Your task to perform on an android device: make emails show in primary in the gmail app Image 0: 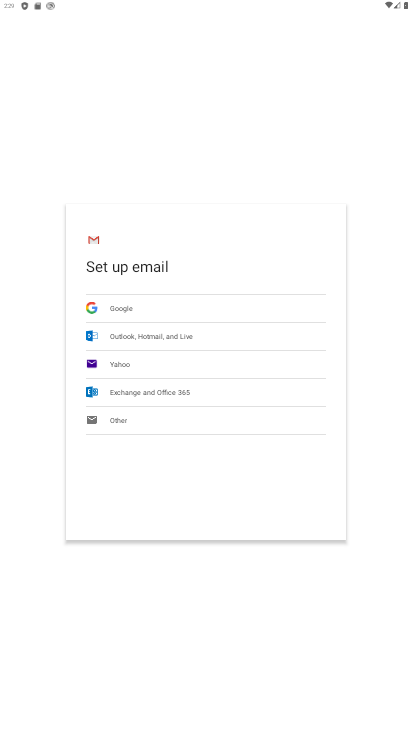
Step 0: press home button
Your task to perform on an android device: make emails show in primary in the gmail app Image 1: 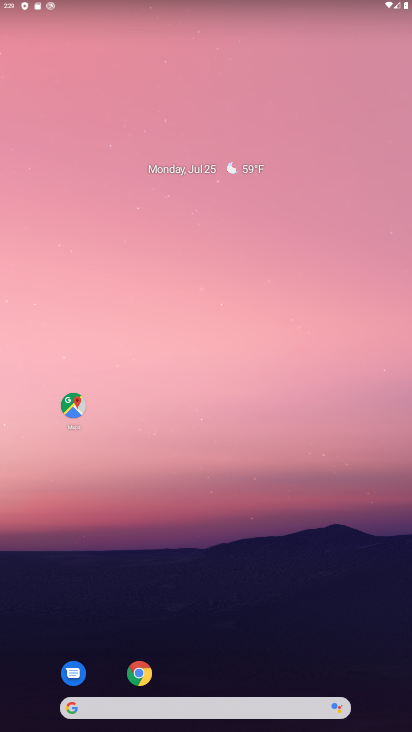
Step 1: drag from (210, 0) to (189, 44)
Your task to perform on an android device: make emails show in primary in the gmail app Image 2: 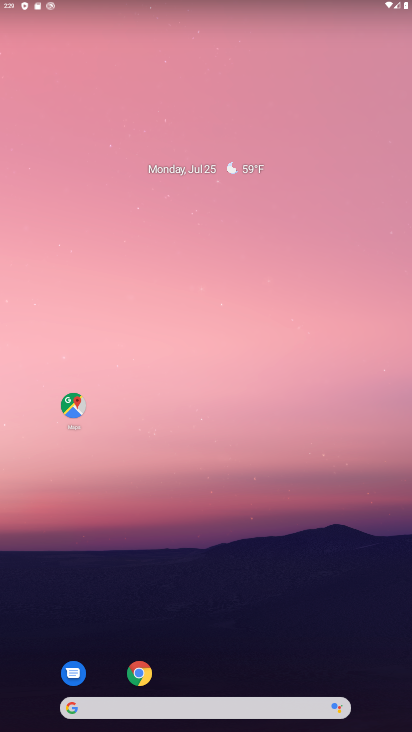
Step 2: drag from (211, 594) to (212, 115)
Your task to perform on an android device: make emails show in primary in the gmail app Image 3: 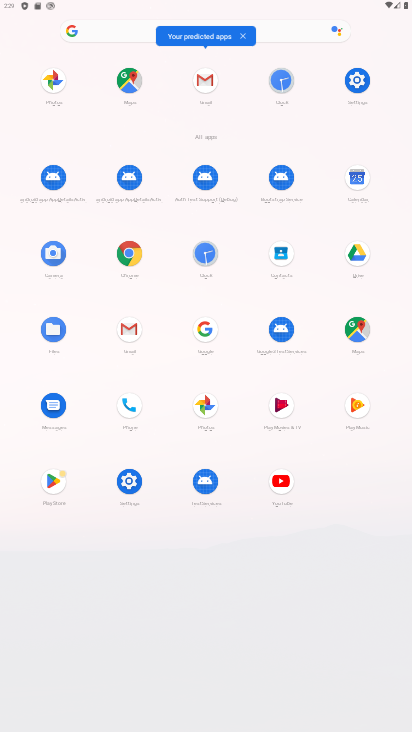
Step 3: click (206, 84)
Your task to perform on an android device: make emails show in primary in the gmail app Image 4: 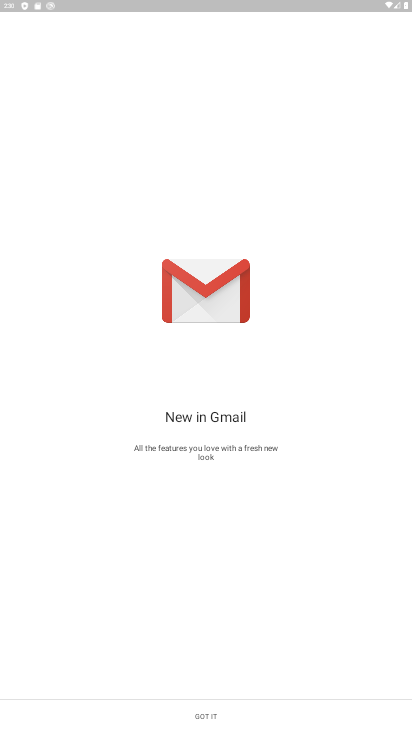
Step 4: click (210, 721)
Your task to perform on an android device: make emails show in primary in the gmail app Image 5: 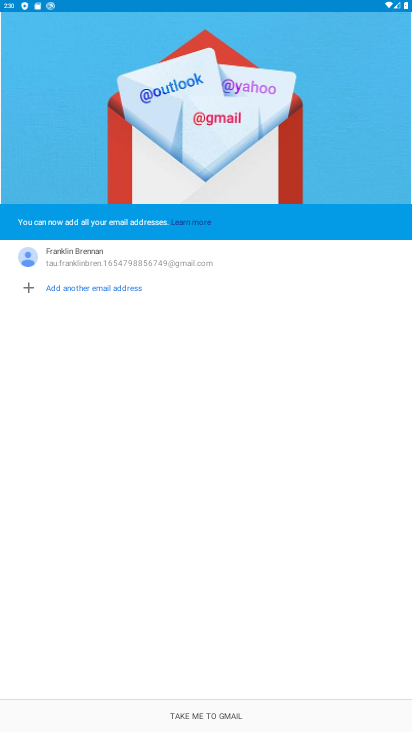
Step 5: click (210, 721)
Your task to perform on an android device: make emails show in primary in the gmail app Image 6: 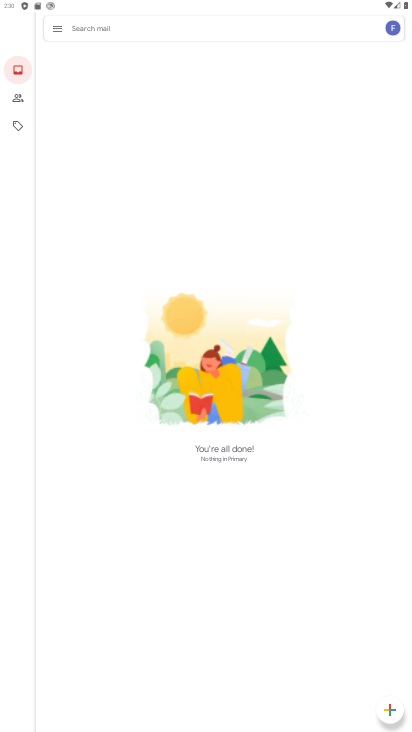
Step 6: click (57, 28)
Your task to perform on an android device: make emails show in primary in the gmail app Image 7: 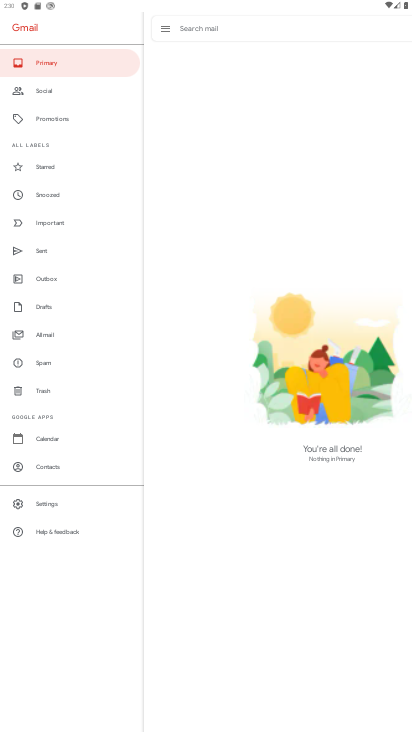
Step 7: click (42, 504)
Your task to perform on an android device: make emails show in primary in the gmail app Image 8: 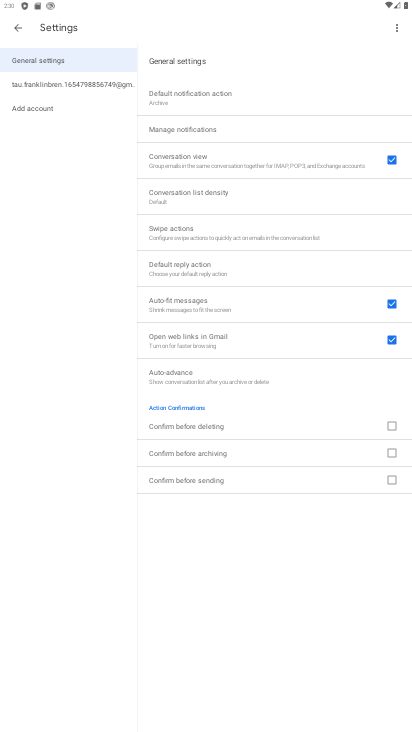
Step 8: click (122, 88)
Your task to perform on an android device: make emails show in primary in the gmail app Image 9: 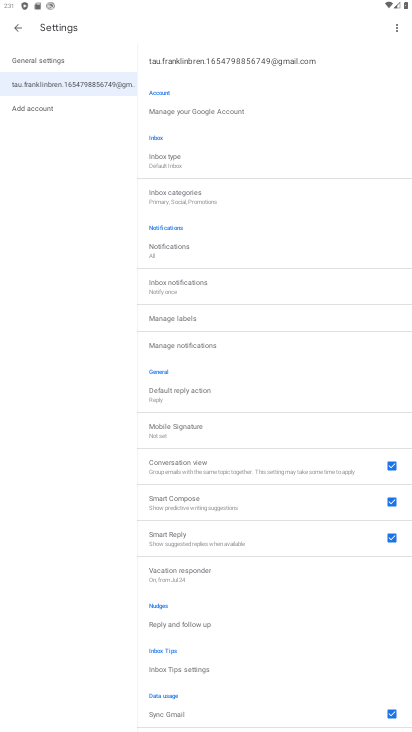
Step 9: click (167, 156)
Your task to perform on an android device: make emails show in primary in the gmail app Image 10: 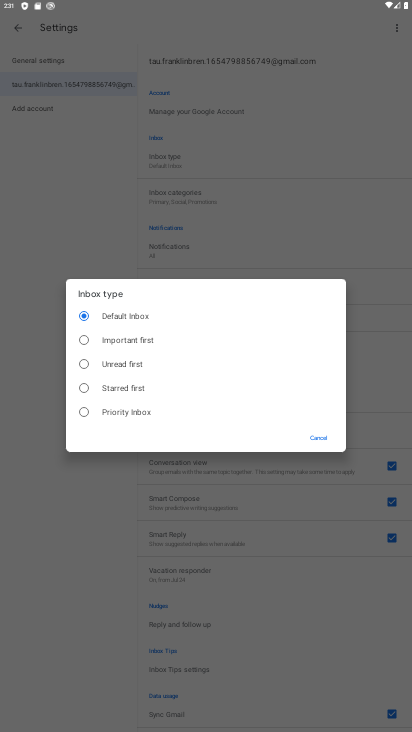
Step 10: task complete